Your task to perform on an android device: turn off data saver in the chrome app Image 0: 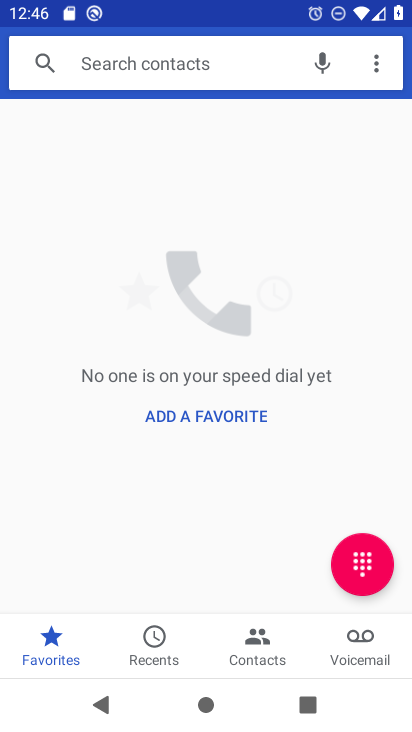
Step 0: press home button
Your task to perform on an android device: turn off data saver in the chrome app Image 1: 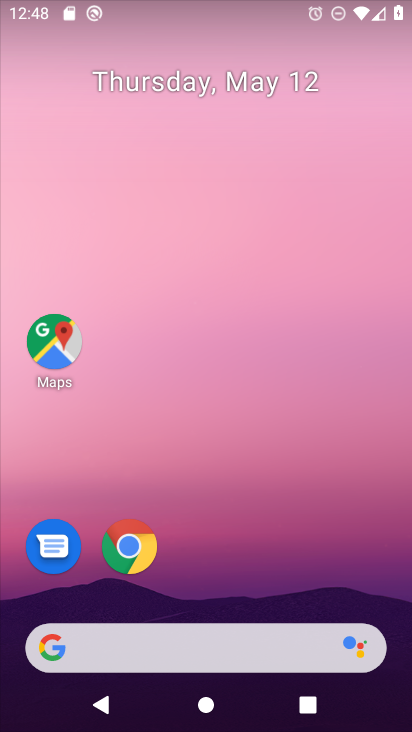
Step 1: drag from (316, 586) to (221, 4)
Your task to perform on an android device: turn off data saver in the chrome app Image 2: 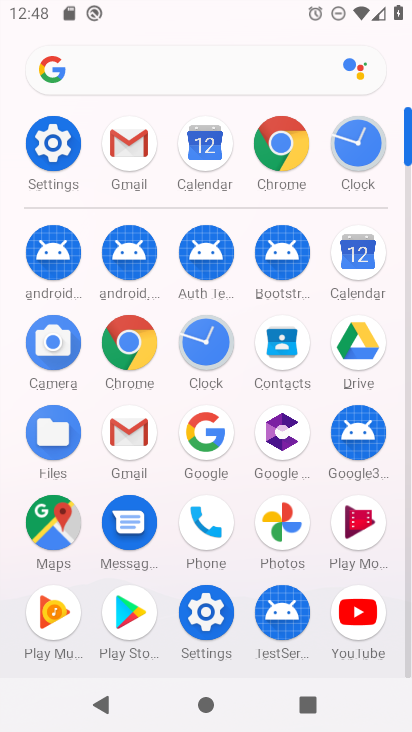
Step 2: click (109, 350)
Your task to perform on an android device: turn off data saver in the chrome app Image 3: 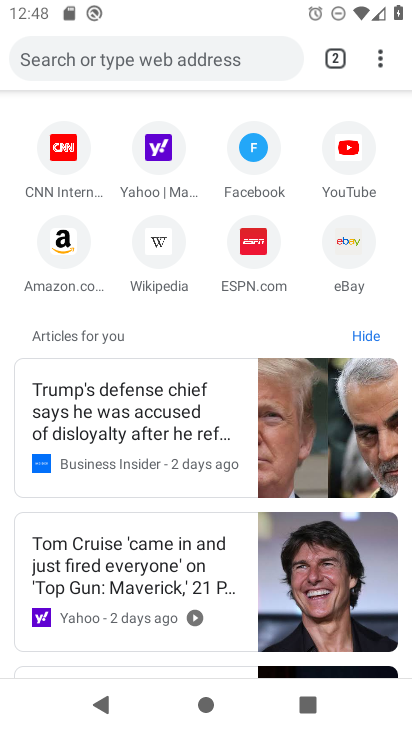
Step 3: click (382, 64)
Your task to perform on an android device: turn off data saver in the chrome app Image 4: 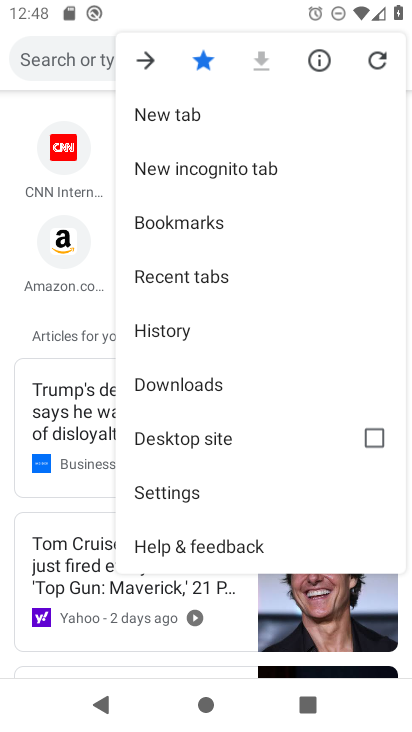
Step 4: click (152, 490)
Your task to perform on an android device: turn off data saver in the chrome app Image 5: 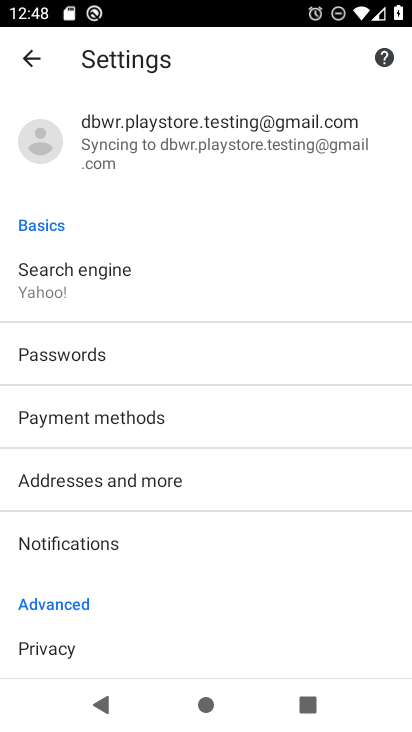
Step 5: drag from (139, 624) to (200, 75)
Your task to perform on an android device: turn off data saver in the chrome app Image 6: 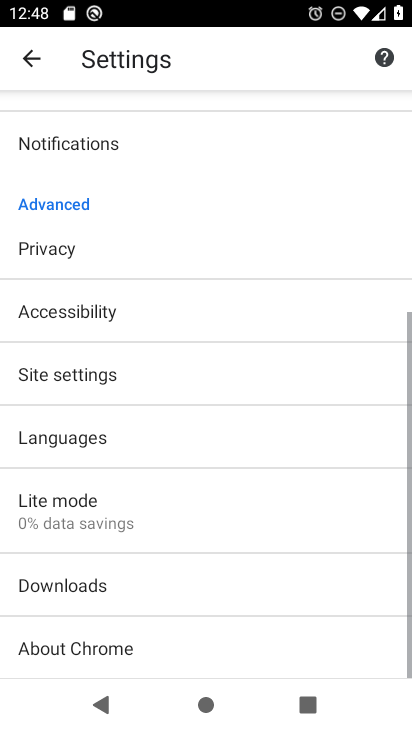
Step 6: click (136, 514)
Your task to perform on an android device: turn off data saver in the chrome app Image 7: 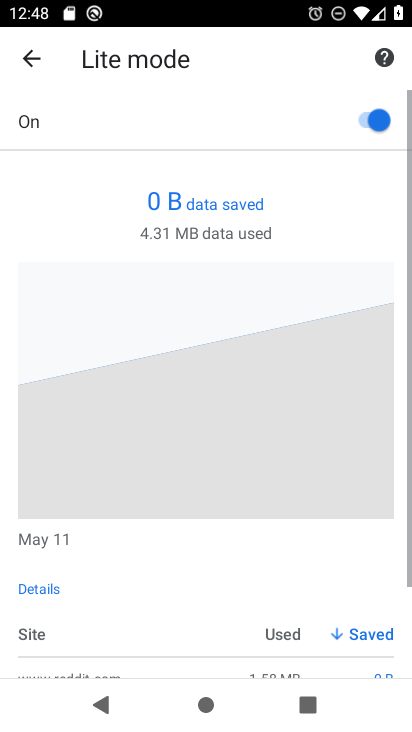
Step 7: click (361, 98)
Your task to perform on an android device: turn off data saver in the chrome app Image 8: 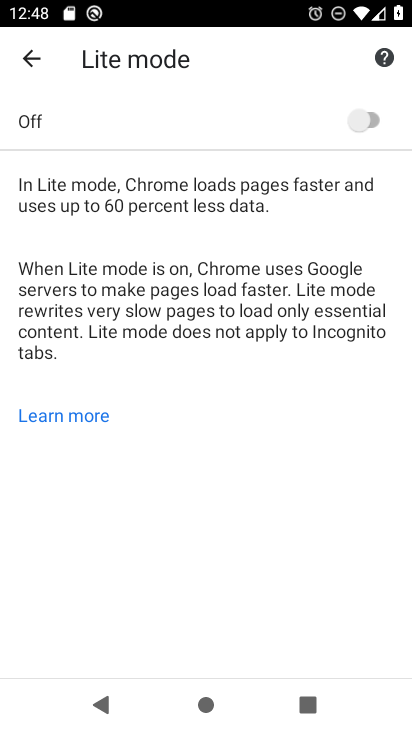
Step 8: task complete